Your task to perform on an android device: Search for Italian restaurants on Maps Image 0: 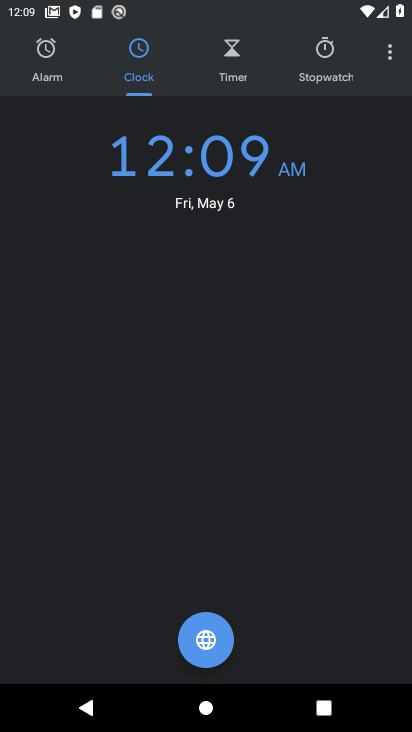
Step 0: press home button
Your task to perform on an android device: Search for Italian restaurants on Maps Image 1: 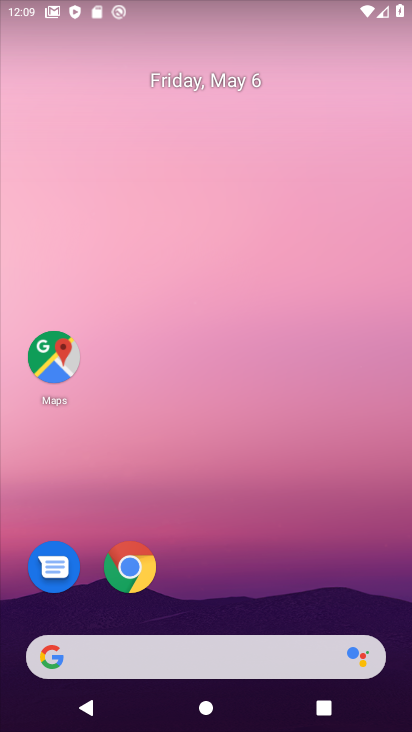
Step 1: click (54, 359)
Your task to perform on an android device: Search for Italian restaurants on Maps Image 2: 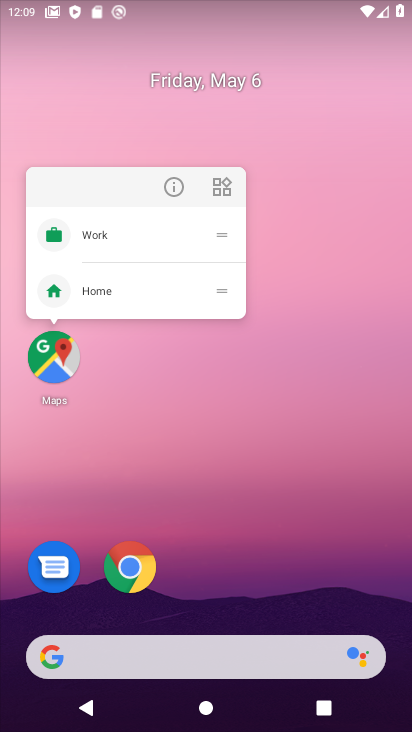
Step 2: click (57, 360)
Your task to perform on an android device: Search for Italian restaurants on Maps Image 3: 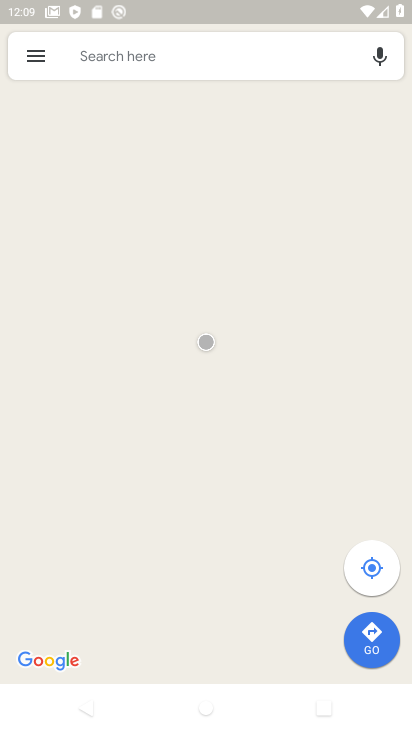
Step 3: click (179, 43)
Your task to perform on an android device: Search for Italian restaurants on Maps Image 4: 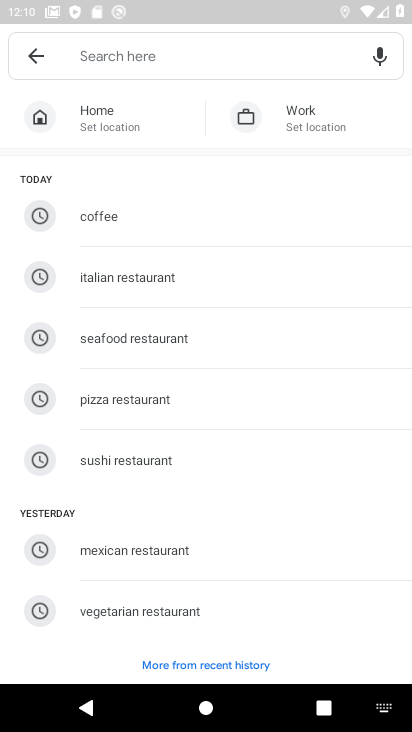
Step 4: type "Italian restaurants"
Your task to perform on an android device: Search for Italian restaurants on Maps Image 5: 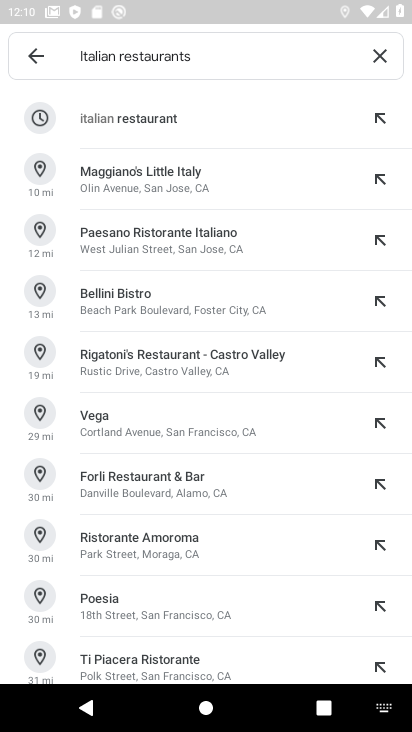
Step 5: click (163, 122)
Your task to perform on an android device: Search for Italian restaurants on Maps Image 6: 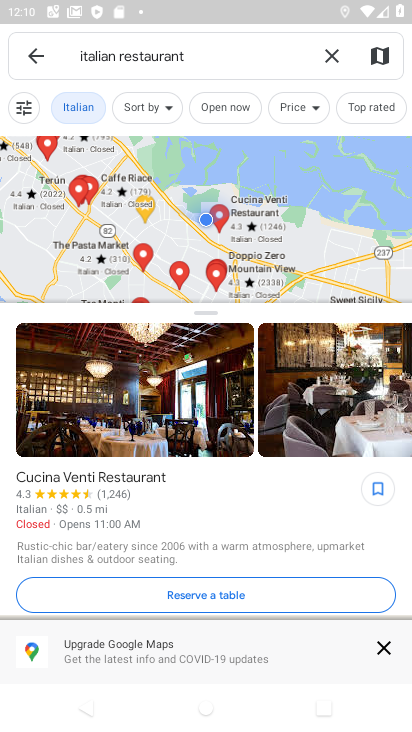
Step 6: task complete